Your task to perform on an android device: Check the weather Image 0: 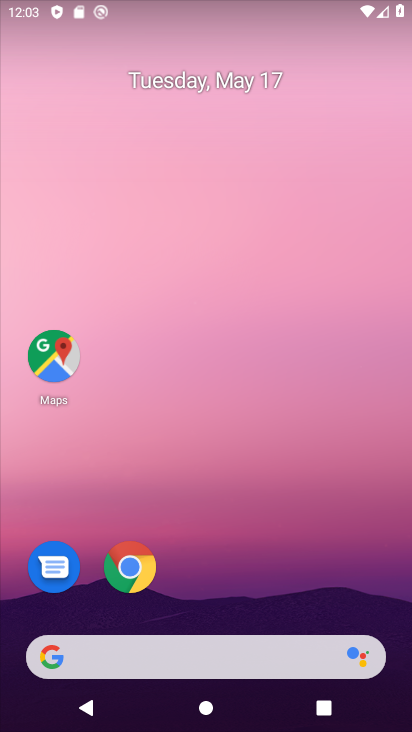
Step 0: click (122, 560)
Your task to perform on an android device: Check the weather Image 1: 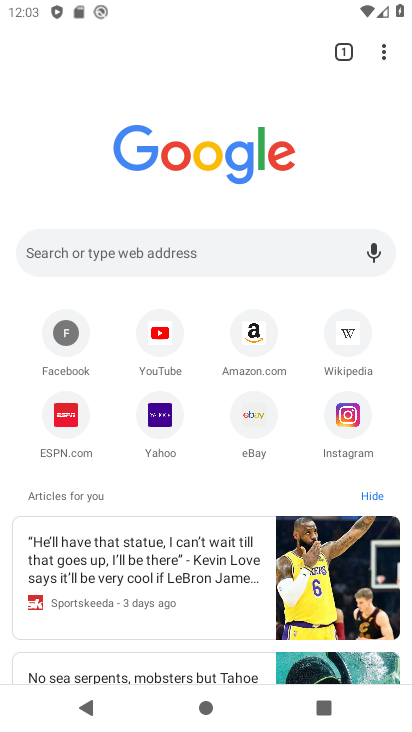
Step 1: click (205, 243)
Your task to perform on an android device: Check the weather Image 2: 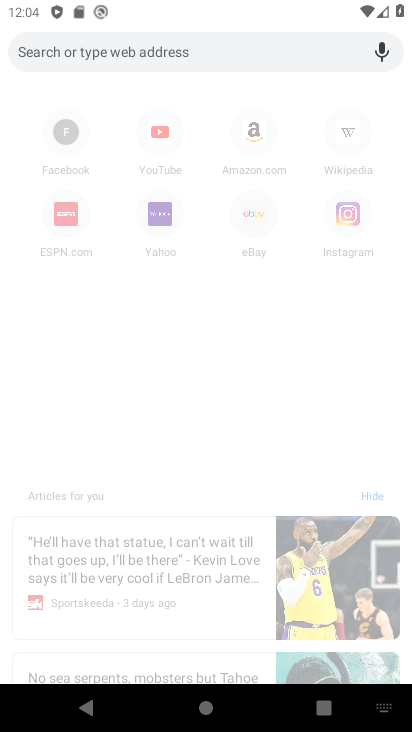
Step 2: type "weather"
Your task to perform on an android device: Check the weather Image 3: 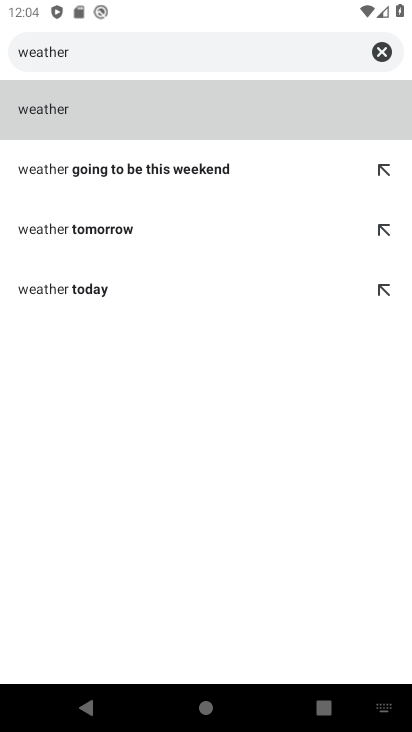
Step 3: click (111, 107)
Your task to perform on an android device: Check the weather Image 4: 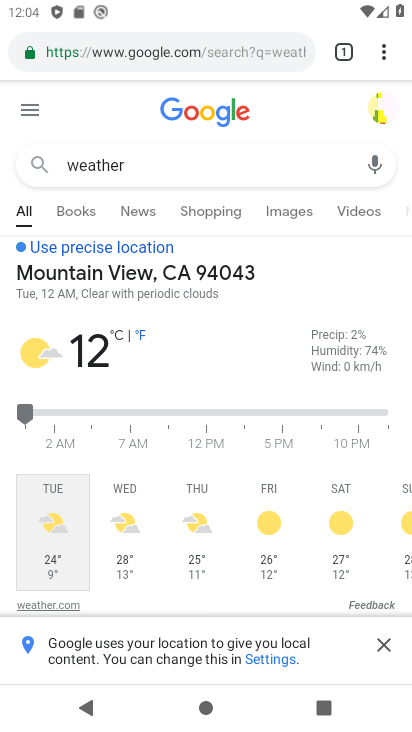
Step 4: task complete